Your task to perform on an android device: turn on the 12-hour format for clock Image 0: 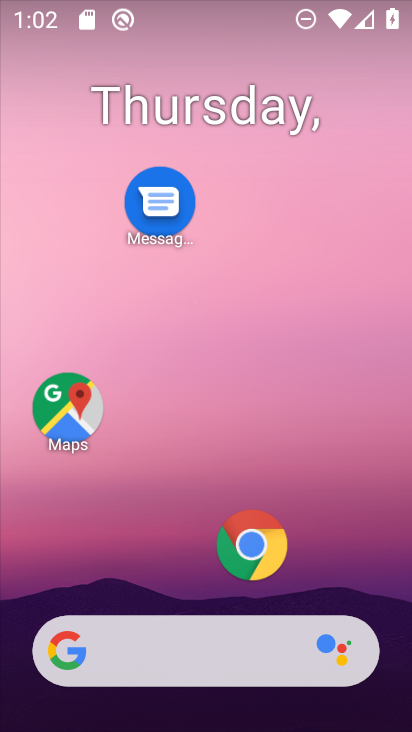
Step 0: drag from (207, 582) to (224, 238)
Your task to perform on an android device: turn on the 12-hour format for clock Image 1: 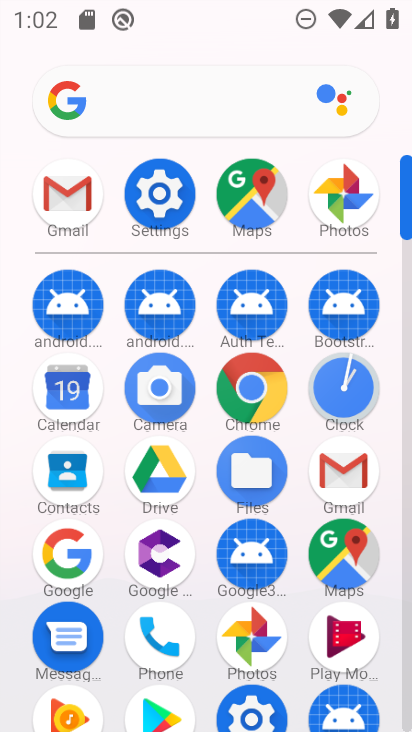
Step 1: drag from (134, 536) to (222, 254)
Your task to perform on an android device: turn on the 12-hour format for clock Image 2: 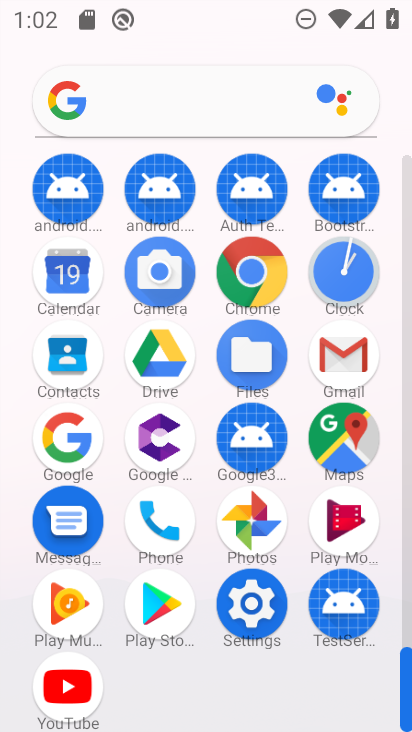
Step 2: click (343, 270)
Your task to perform on an android device: turn on the 12-hour format for clock Image 3: 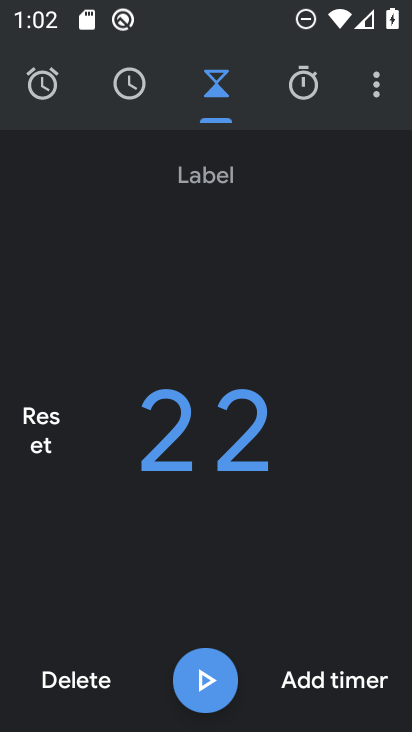
Step 3: click (381, 71)
Your task to perform on an android device: turn on the 12-hour format for clock Image 4: 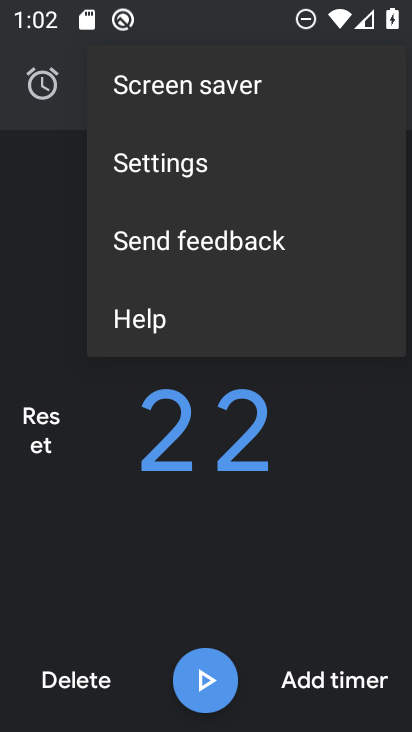
Step 4: click (202, 167)
Your task to perform on an android device: turn on the 12-hour format for clock Image 5: 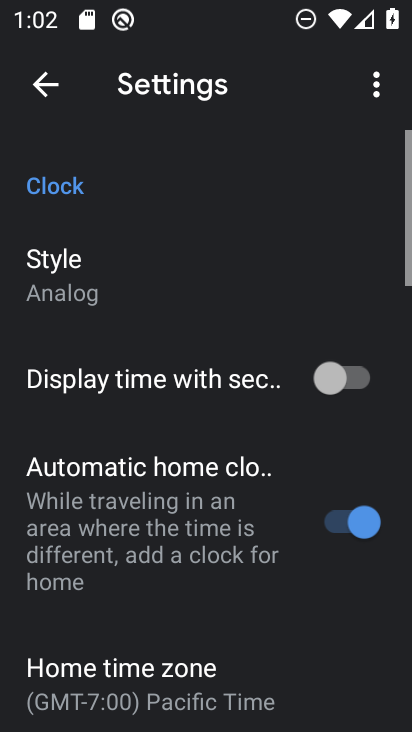
Step 5: drag from (222, 545) to (253, 248)
Your task to perform on an android device: turn on the 12-hour format for clock Image 6: 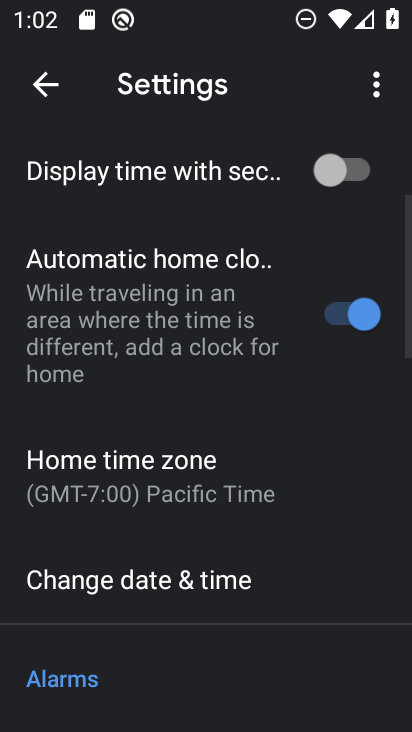
Step 6: drag from (195, 578) to (212, 370)
Your task to perform on an android device: turn on the 12-hour format for clock Image 7: 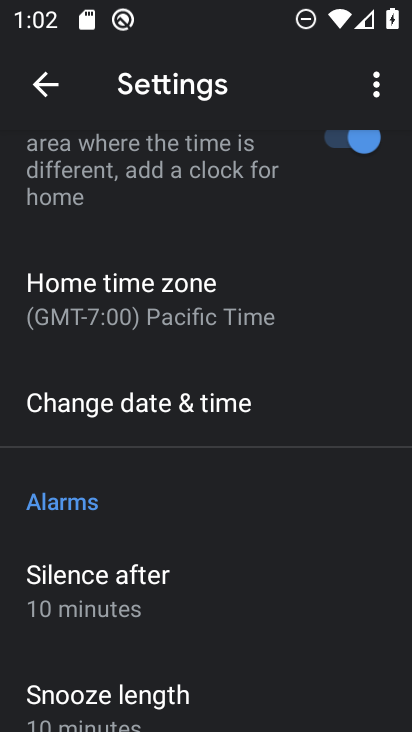
Step 7: click (133, 407)
Your task to perform on an android device: turn on the 12-hour format for clock Image 8: 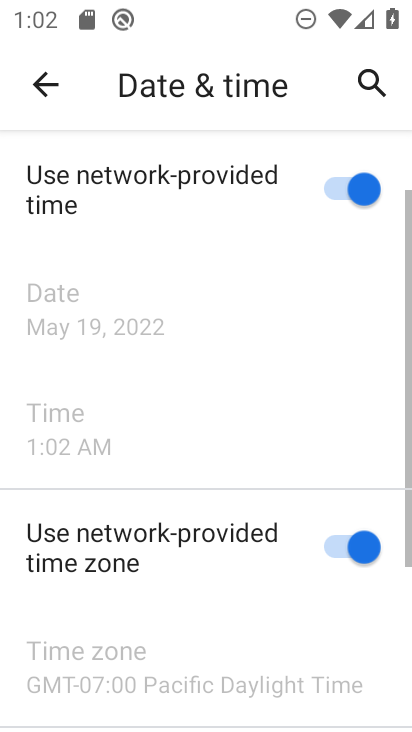
Step 8: task complete